Your task to perform on an android device: Show me popular games on the Play Store Image 0: 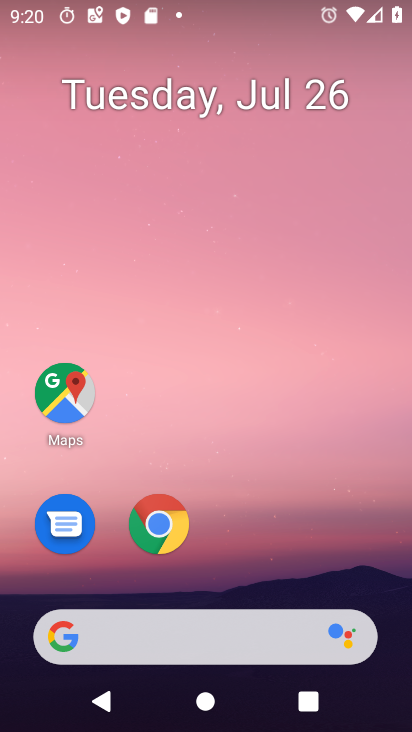
Step 0: drag from (247, 547) to (212, 2)
Your task to perform on an android device: Show me popular games on the Play Store Image 1: 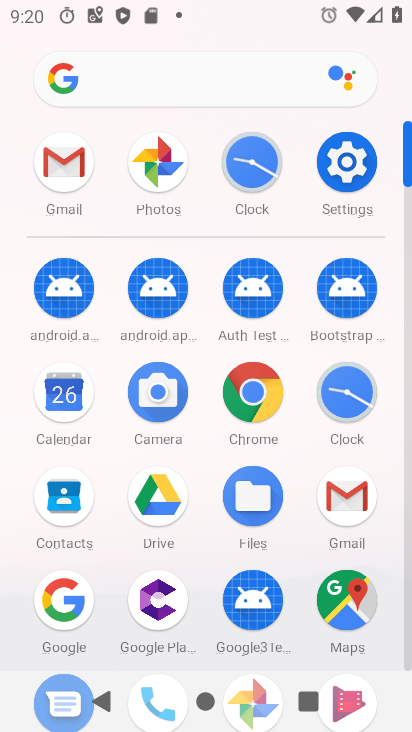
Step 1: drag from (205, 528) to (204, 31)
Your task to perform on an android device: Show me popular games on the Play Store Image 2: 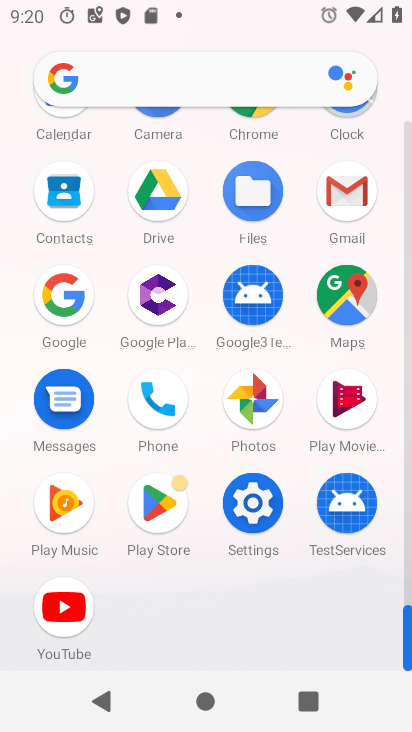
Step 2: click (166, 501)
Your task to perform on an android device: Show me popular games on the Play Store Image 3: 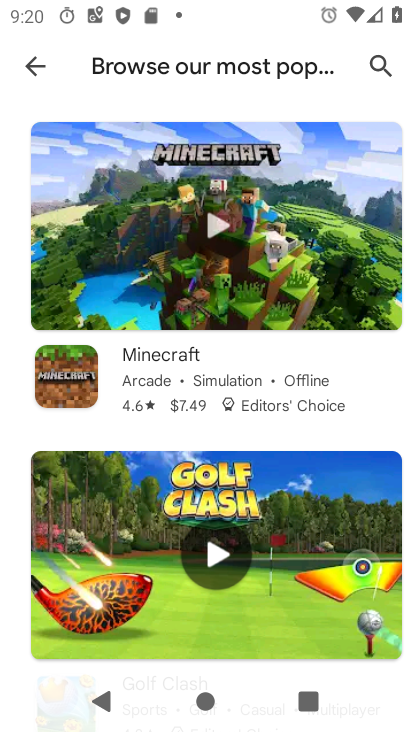
Step 3: task complete